Your task to perform on an android device: Open location settings Image 0: 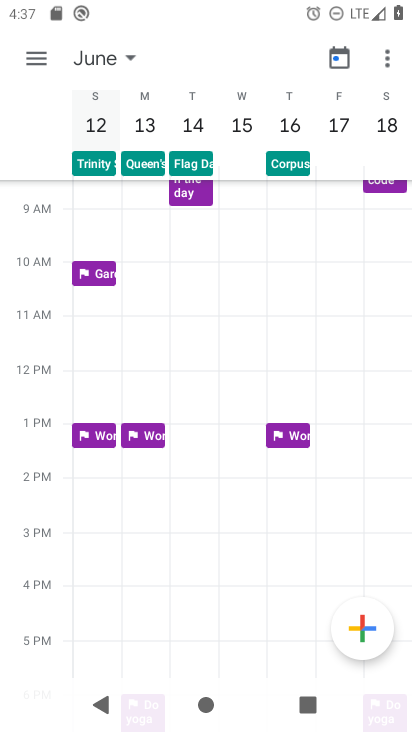
Step 0: press home button
Your task to perform on an android device: Open location settings Image 1: 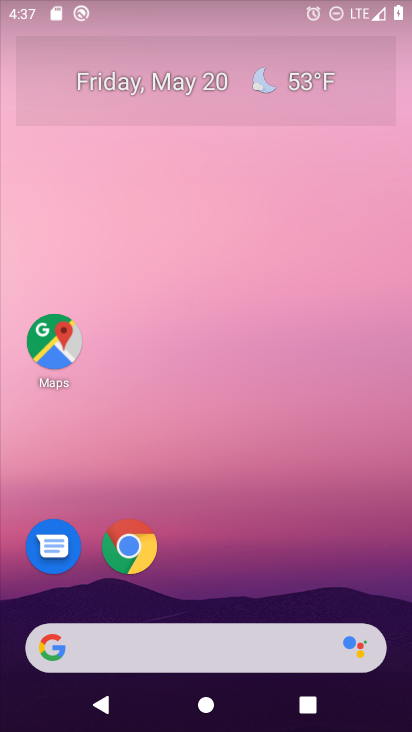
Step 1: drag from (377, 527) to (288, 107)
Your task to perform on an android device: Open location settings Image 2: 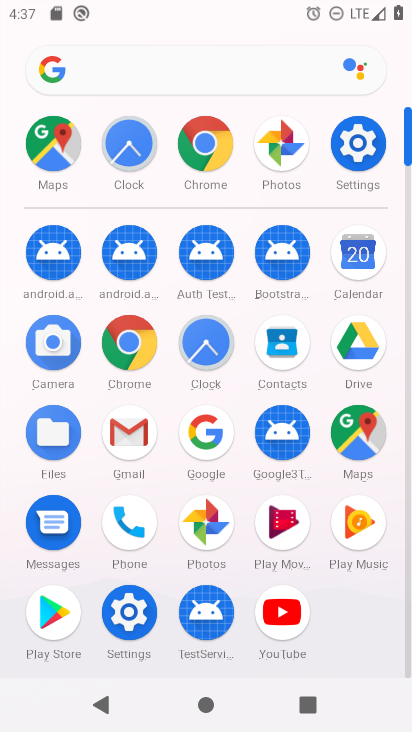
Step 2: click (367, 145)
Your task to perform on an android device: Open location settings Image 3: 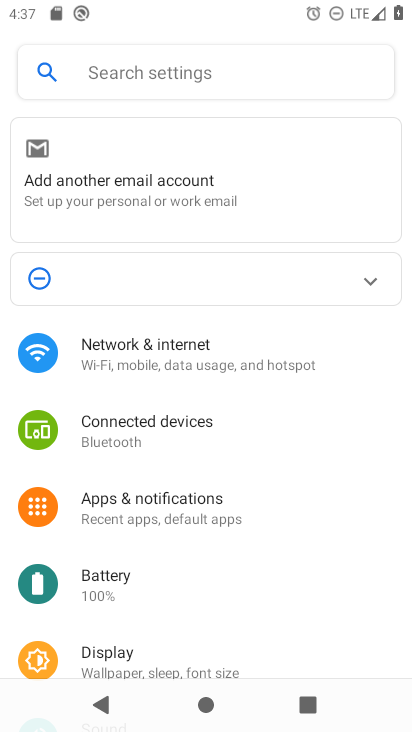
Step 3: drag from (233, 570) to (280, 193)
Your task to perform on an android device: Open location settings Image 4: 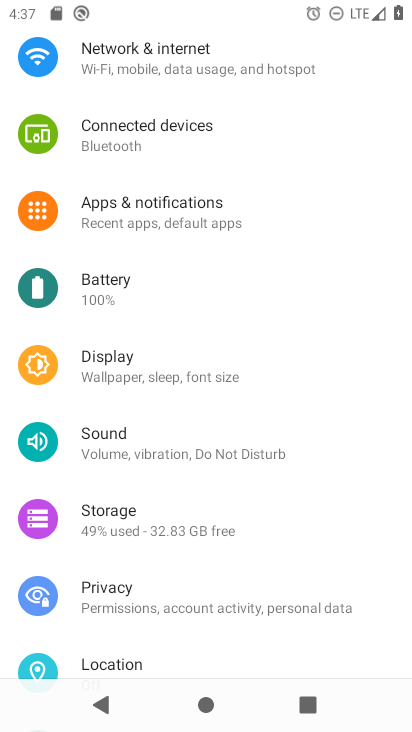
Step 4: click (112, 650)
Your task to perform on an android device: Open location settings Image 5: 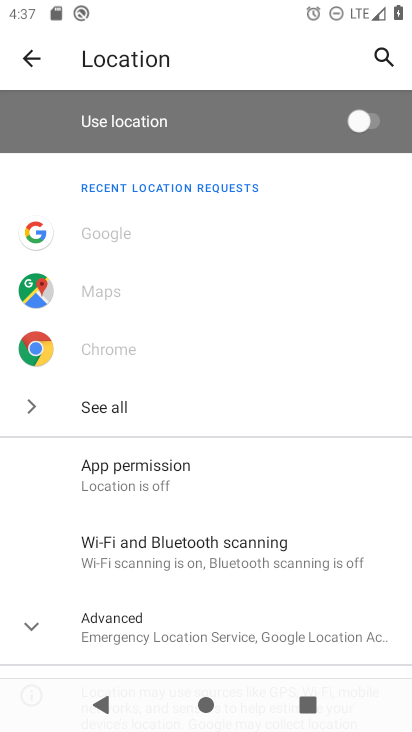
Step 5: click (197, 477)
Your task to perform on an android device: Open location settings Image 6: 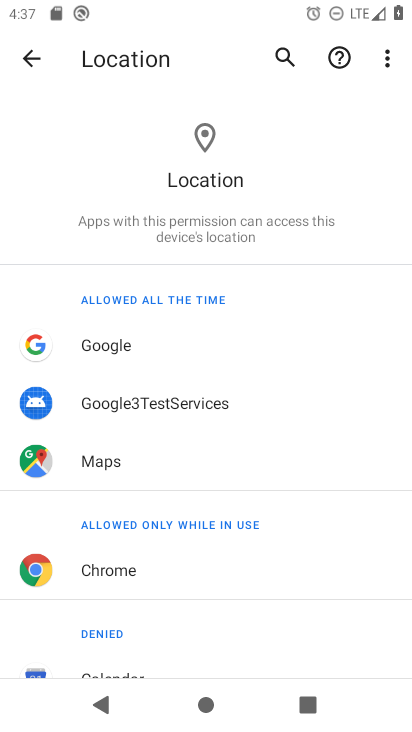
Step 6: drag from (213, 551) to (262, 133)
Your task to perform on an android device: Open location settings Image 7: 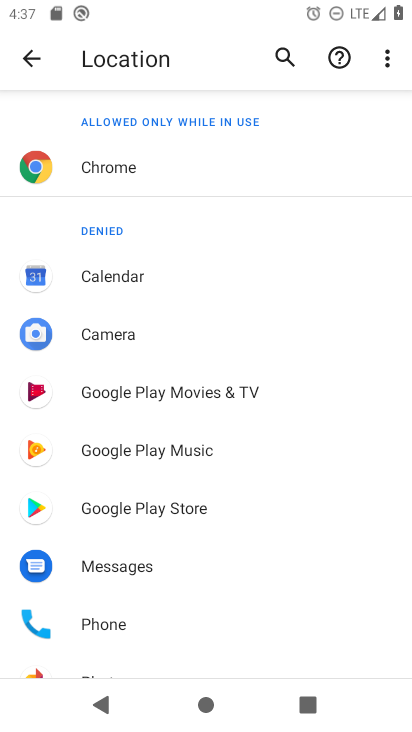
Step 7: drag from (220, 560) to (229, 681)
Your task to perform on an android device: Open location settings Image 8: 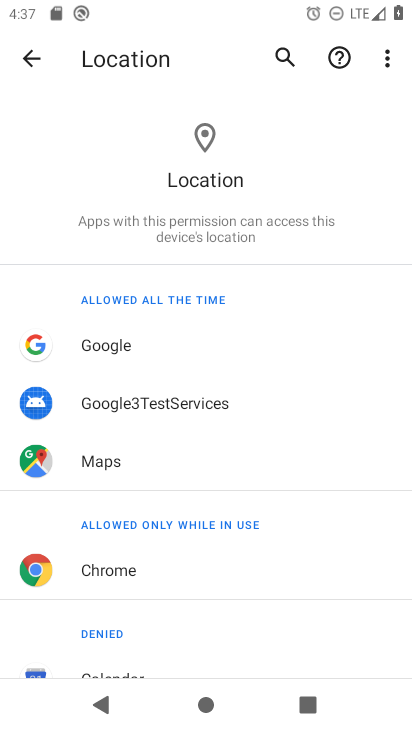
Step 8: click (38, 56)
Your task to perform on an android device: Open location settings Image 9: 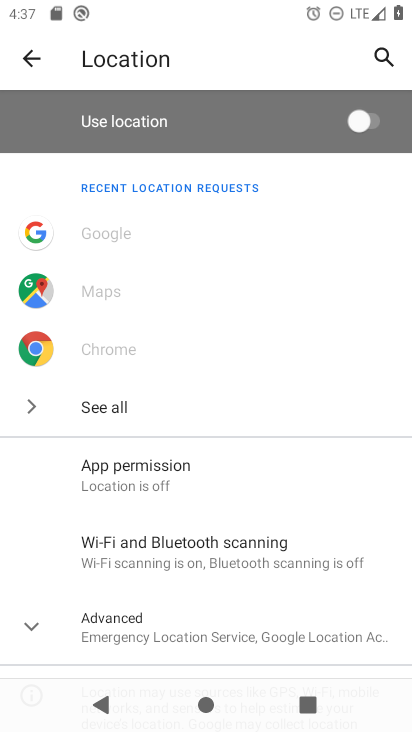
Step 9: task complete